Your task to perform on an android device: Open Chrome and go to settings Image 0: 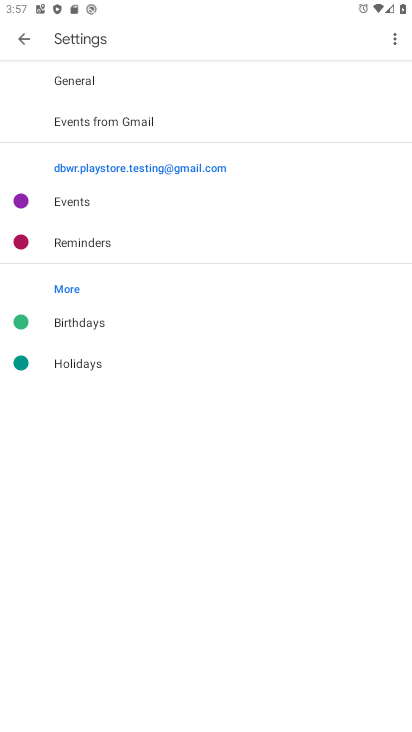
Step 0: press home button
Your task to perform on an android device: Open Chrome and go to settings Image 1: 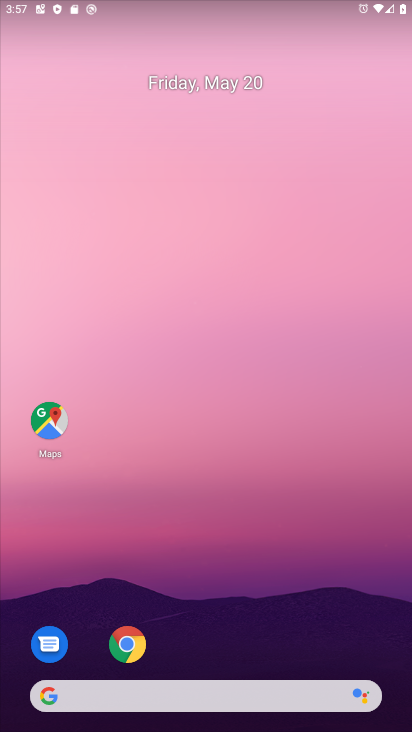
Step 1: drag from (246, 612) to (197, 20)
Your task to perform on an android device: Open Chrome and go to settings Image 2: 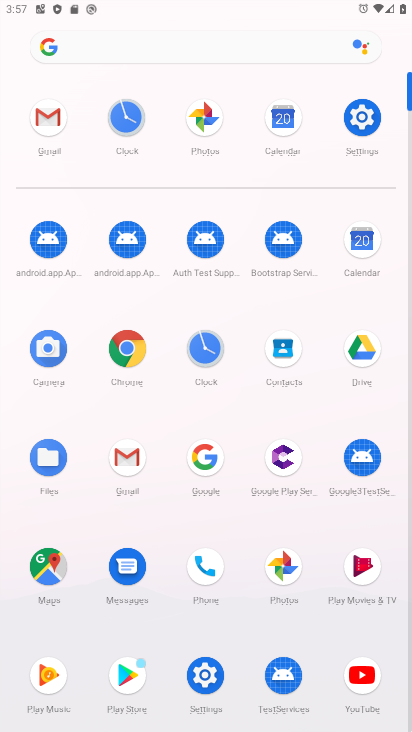
Step 2: click (123, 342)
Your task to perform on an android device: Open Chrome and go to settings Image 3: 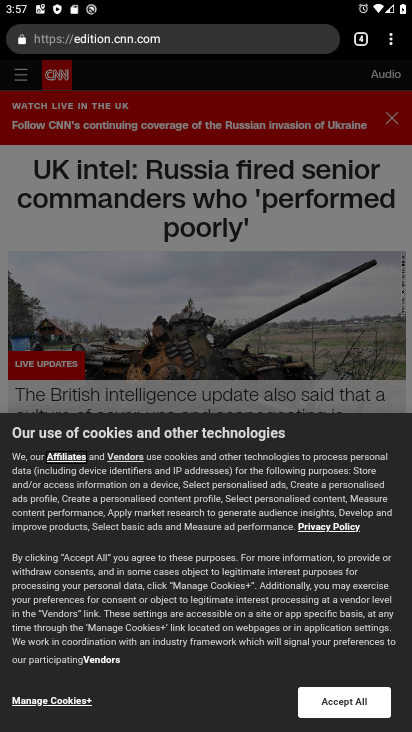
Step 3: click (390, 50)
Your task to perform on an android device: Open Chrome and go to settings Image 4: 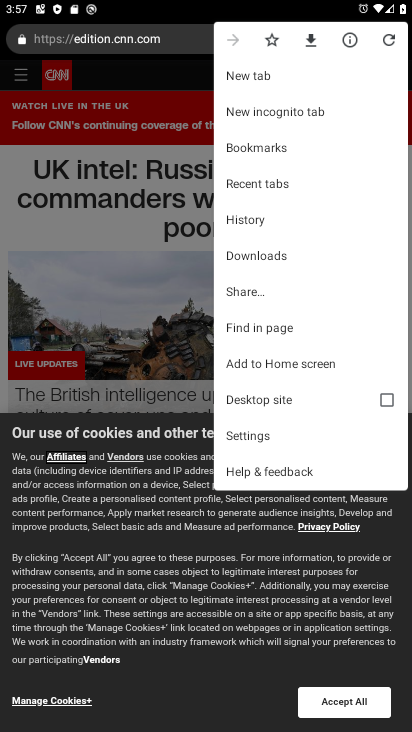
Step 4: click (266, 445)
Your task to perform on an android device: Open Chrome and go to settings Image 5: 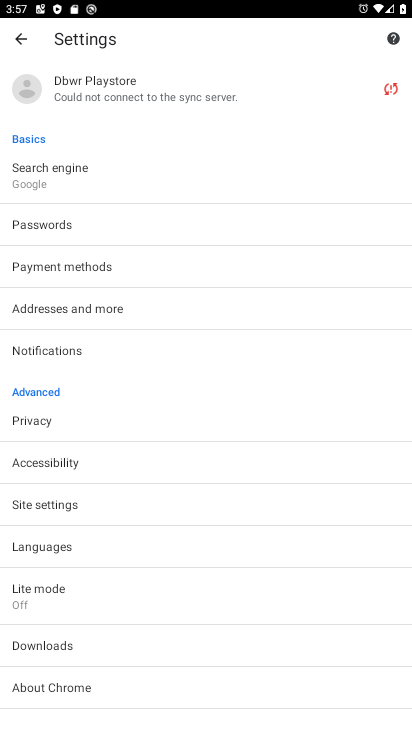
Step 5: task complete